Your task to perform on an android device: toggle pop-ups in chrome Image 0: 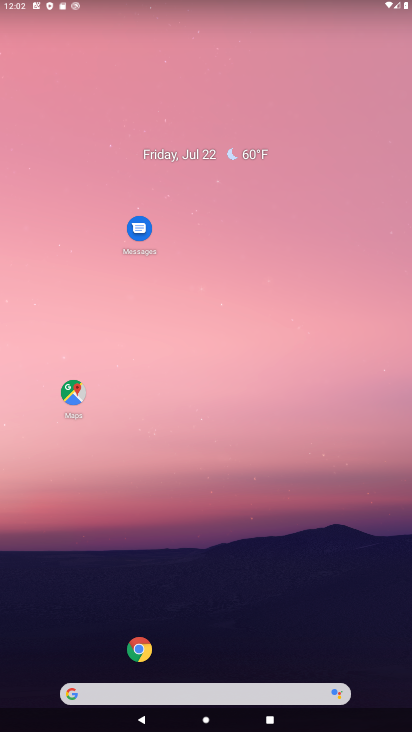
Step 0: click (144, 664)
Your task to perform on an android device: toggle pop-ups in chrome Image 1: 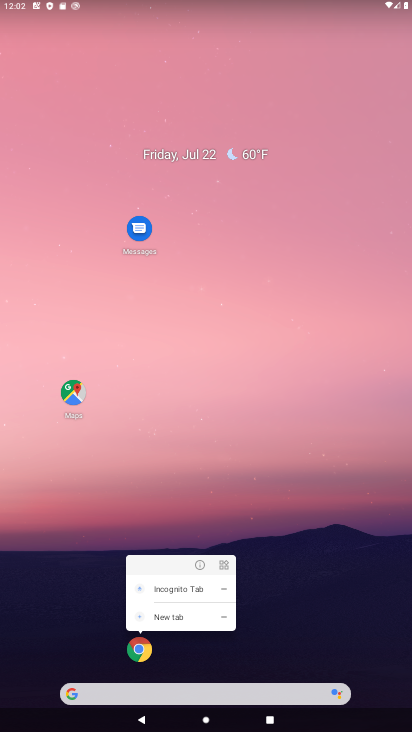
Step 1: click (124, 652)
Your task to perform on an android device: toggle pop-ups in chrome Image 2: 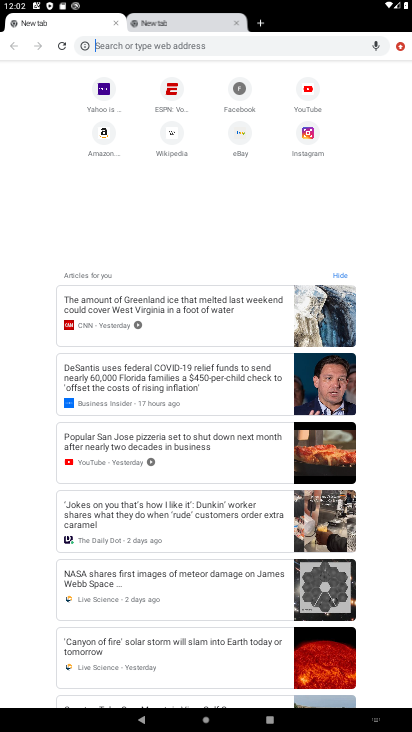
Step 2: click (252, 22)
Your task to perform on an android device: toggle pop-ups in chrome Image 3: 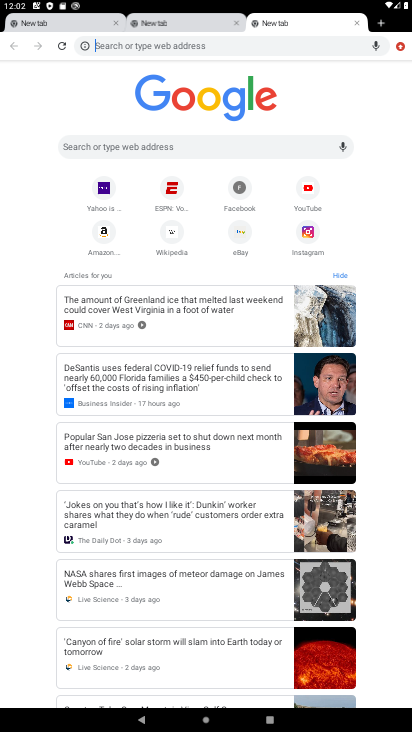
Step 3: click (269, 127)
Your task to perform on an android device: toggle pop-ups in chrome Image 4: 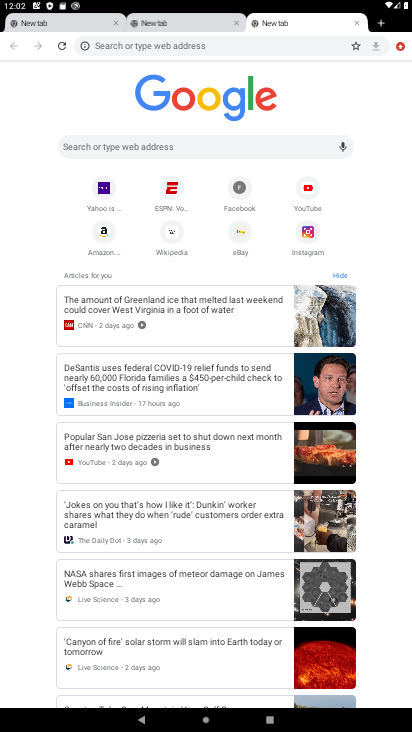
Step 4: click (226, 147)
Your task to perform on an android device: toggle pop-ups in chrome Image 5: 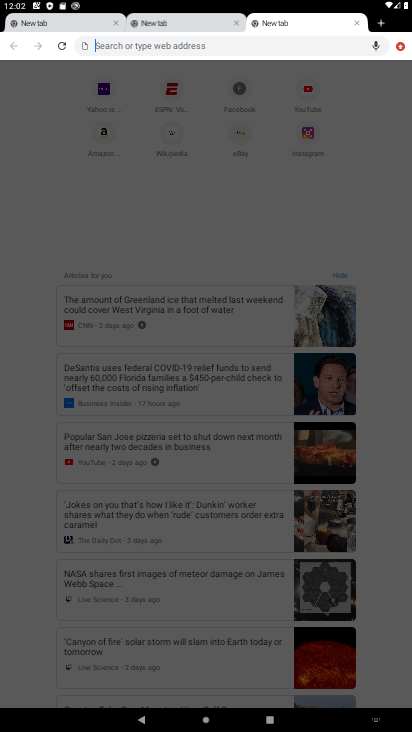
Step 5: click (219, 159)
Your task to perform on an android device: toggle pop-ups in chrome Image 6: 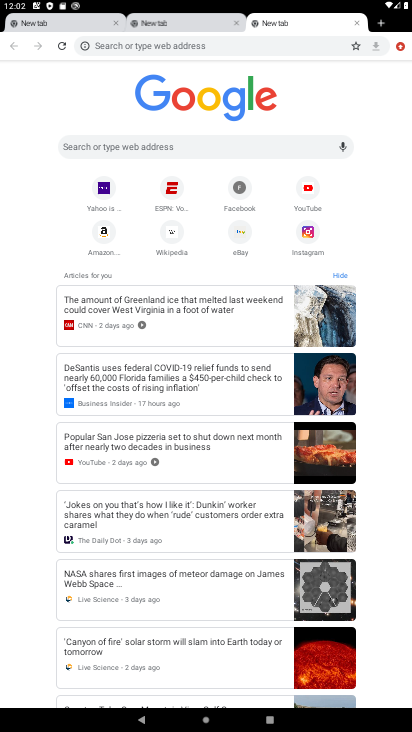
Step 6: task complete